Your task to perform on an android device: turn off picture-in-picture Image 0: 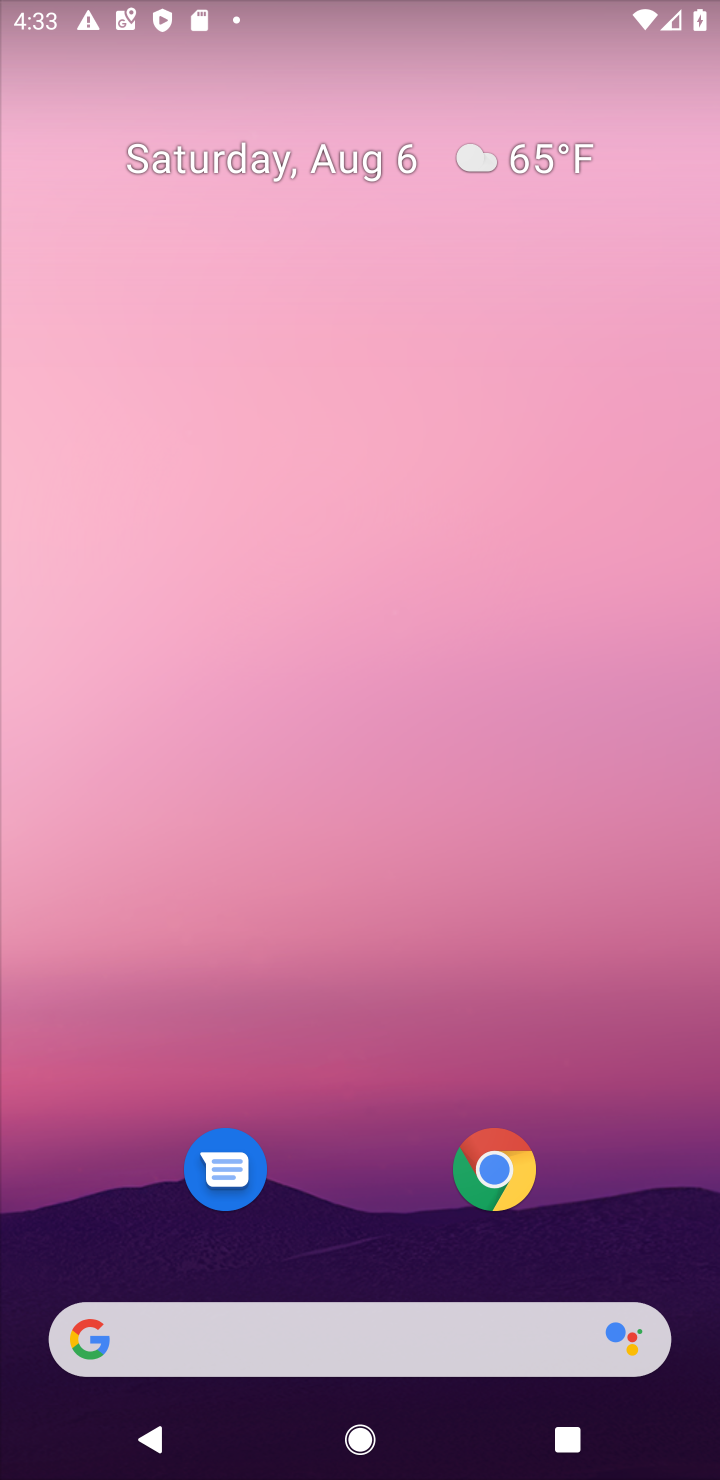
Step 0: click (492, 1178)
Your task to perform on an android device: turn off picture-in-picture Image 1: 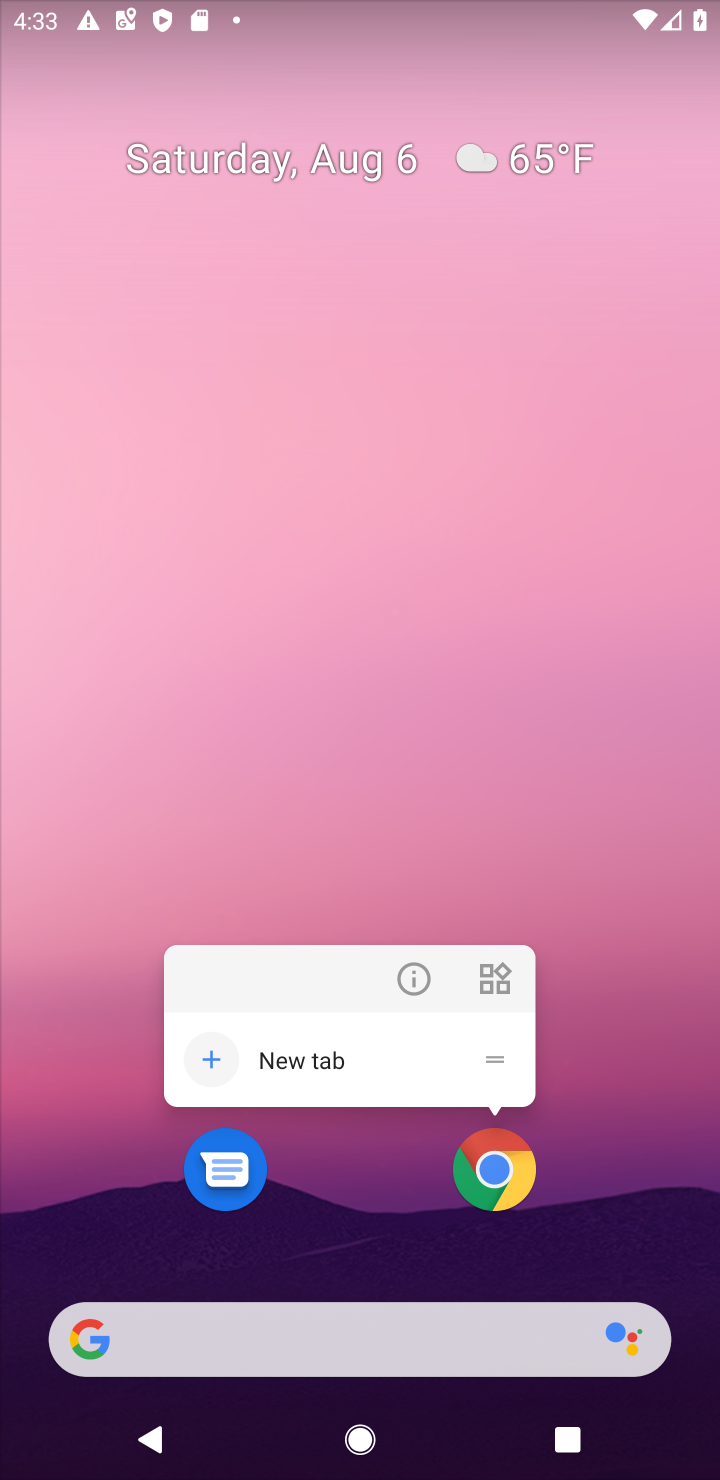
Step 1: click (415, 972)
Your task to perform on an android device: turn off picture-in-picture Image 2: 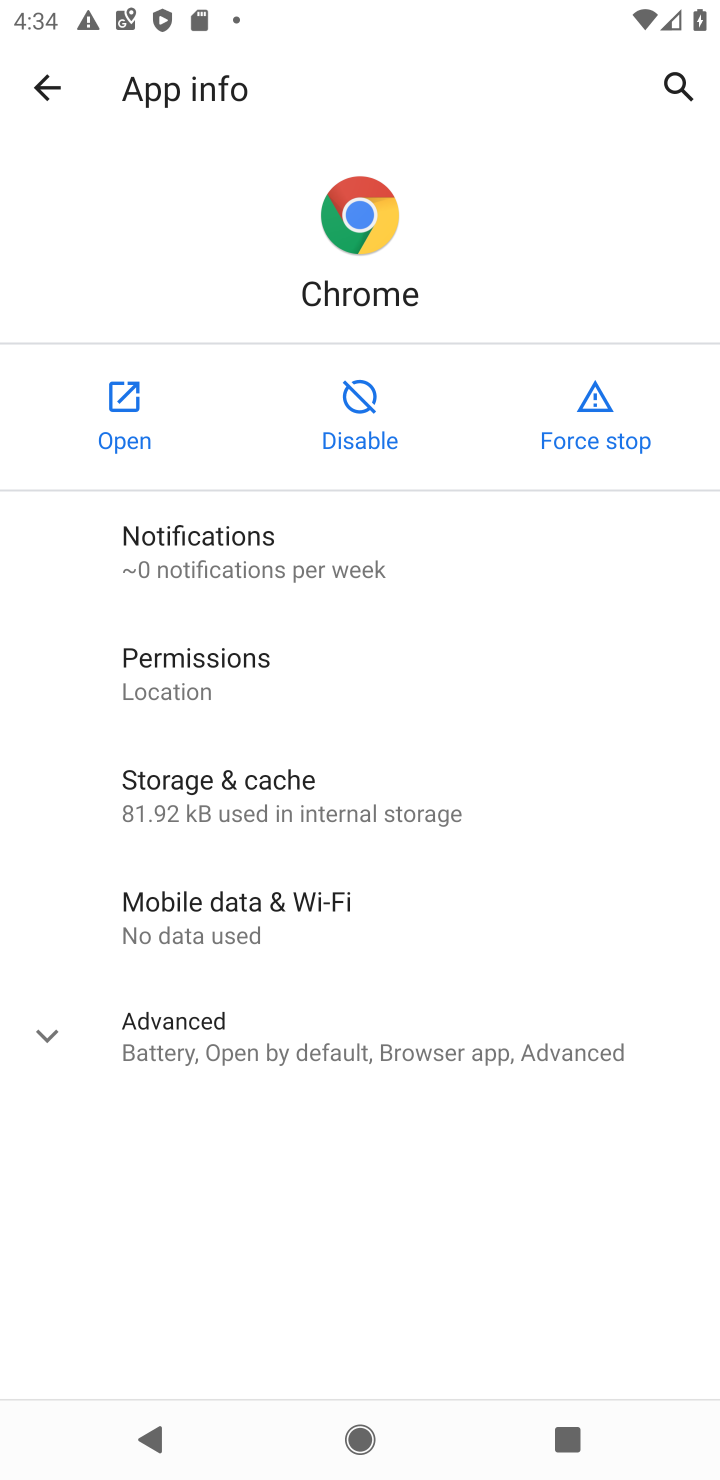
Step 2: click (165, 1029)
Your task to perform on an android device: turn off picture-in-picture Image 3: 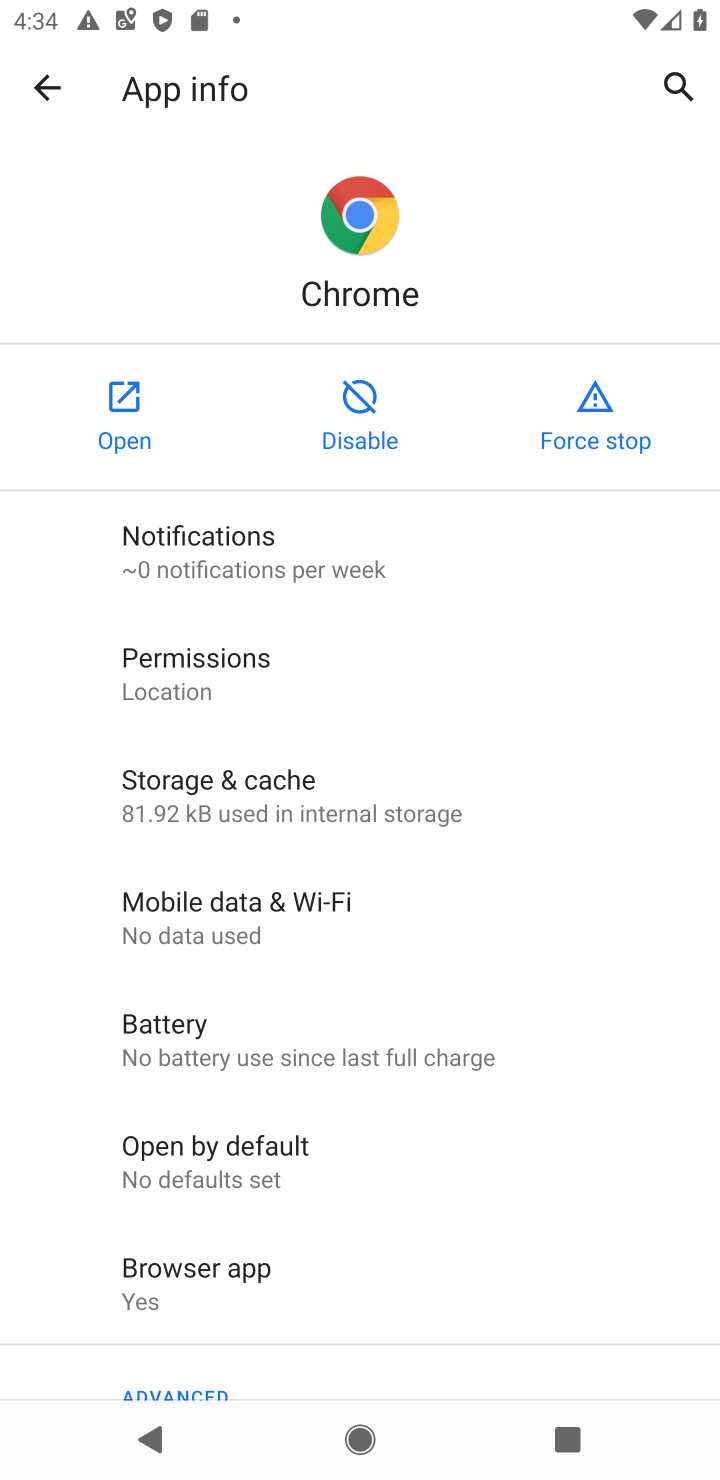
Step 3: drag from (241, 1160) to (194, 360)
Your task to perform on an android device: turn off picture-in-picture Image 4: 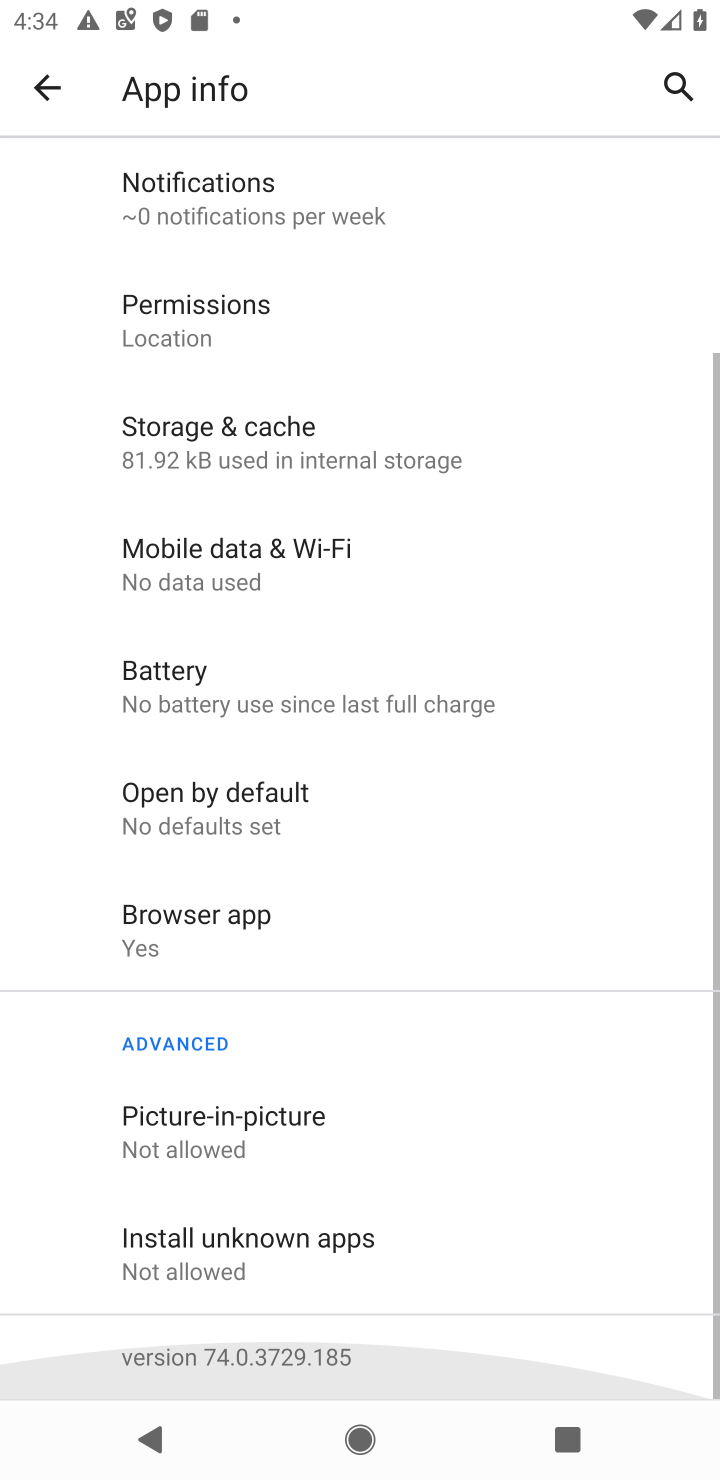
Step 4: click (268, 1116)
Your task to perform on an android device: turn off picture-in-picture Image 5: 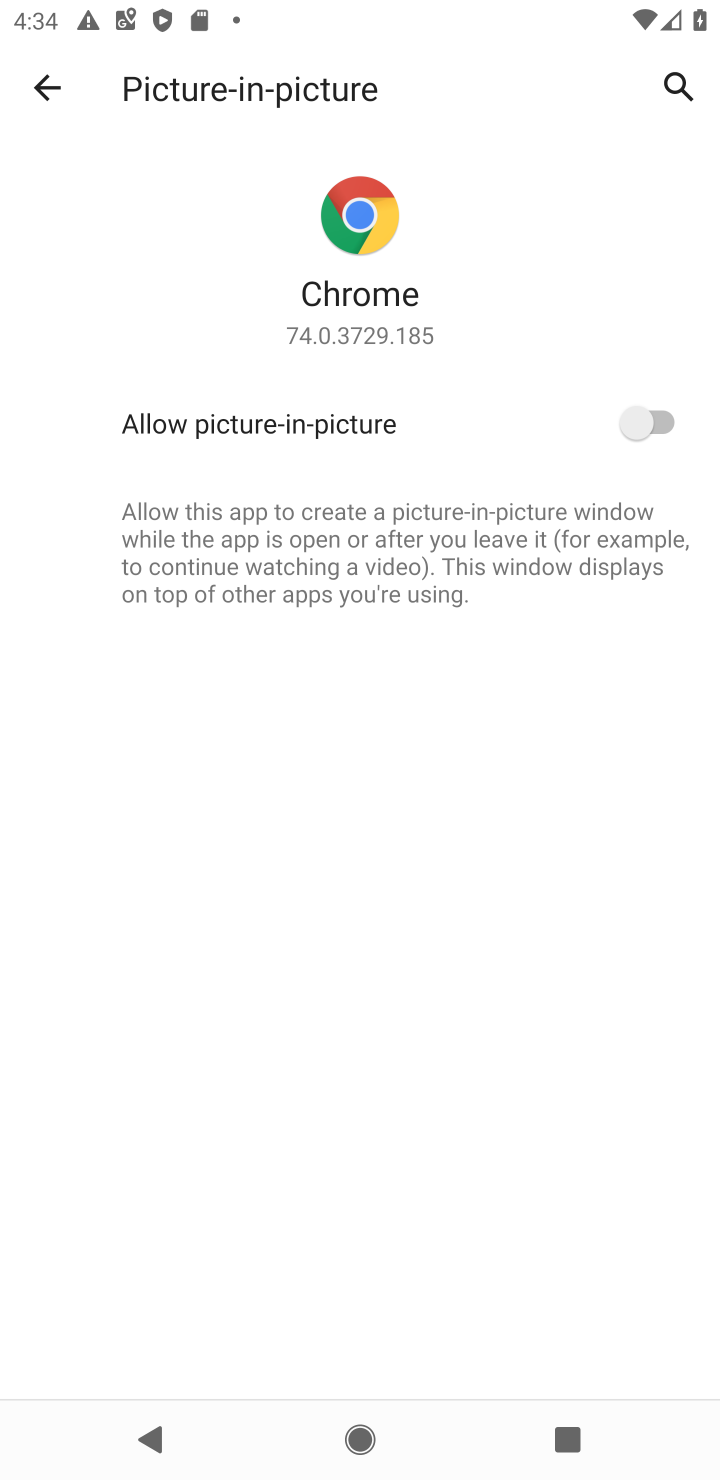
Step 5: task complete